Your task to perform on an android device: Go to ESPN.com Image 0: 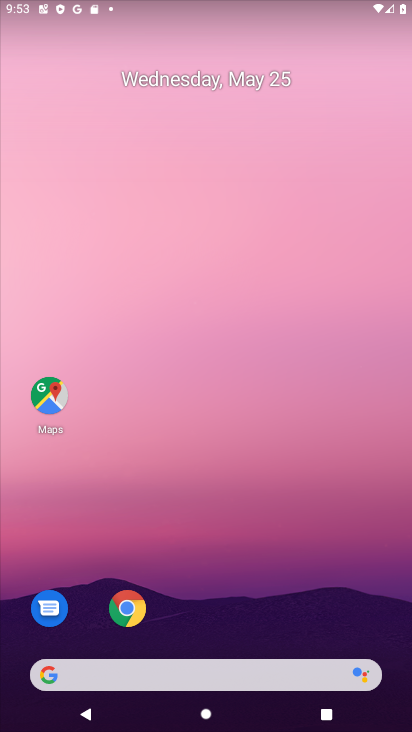
Step 0: click (129, 607)
Your task to perform on an android device: Go to ESPN.com Image 1: 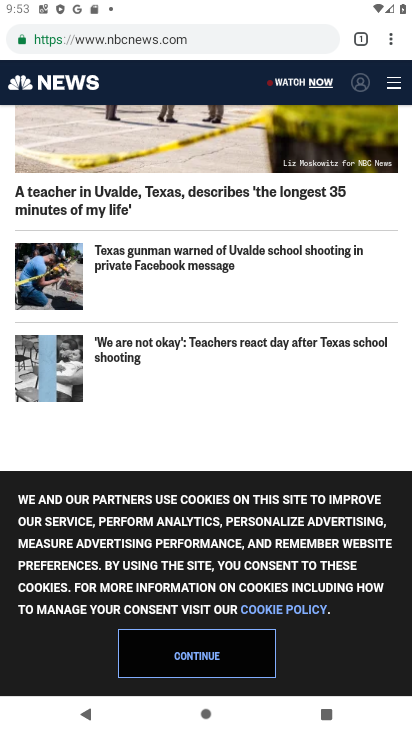
Step 1: click (118, 38)
Your task to perform on an android device: Go to ESPN.com Image 2: 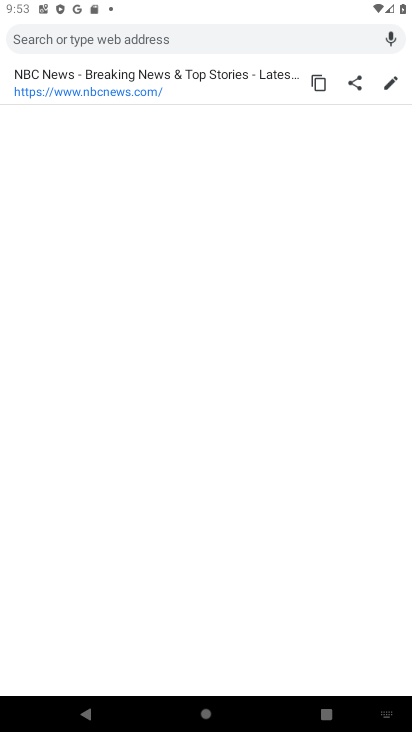
Step 2: type "espn.com"
Your task to perform on an android device: Go to ESPN.com Image 3: 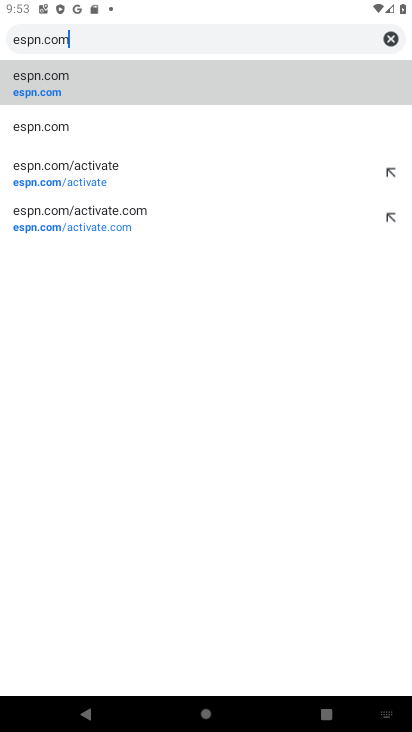
Step 3: click (58, 78)
Your task to perform on an android device: Go to ESPN.com Image 4: 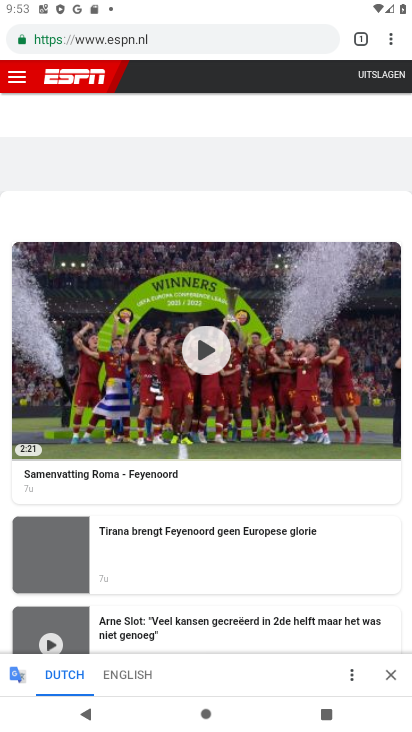
Step 4: task complete